Your task to perform on an android device: add a label to a message in the gmail app Image 0: 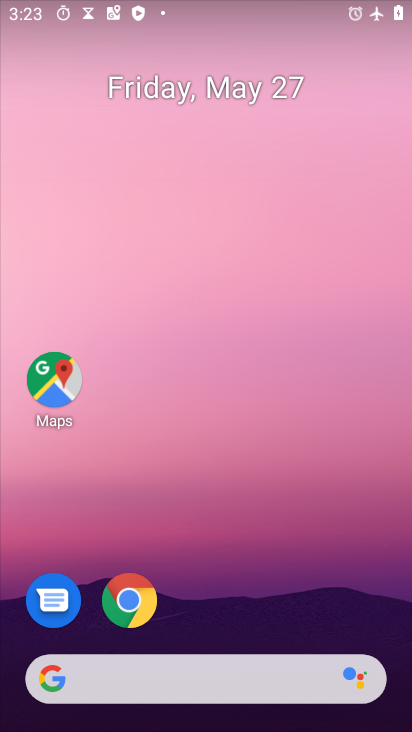
Step 0: drag from (221, 562) to (151, 26)
Your task to perform on an android device: add a label to a message in the gmail app Image 1: 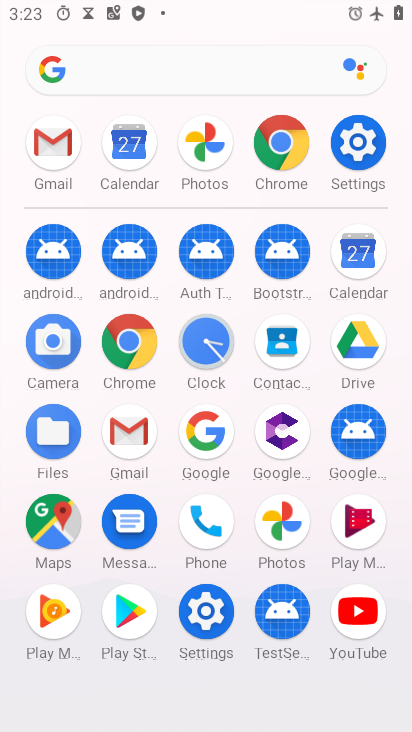
Step 1: drag from (16, 555) to (19, 232)
Your task to perform on an android device: add a label to a message in the gmail app Image 2: 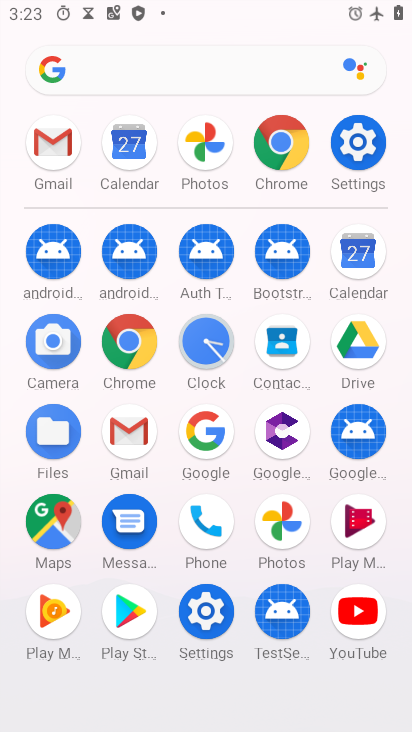
Step 2: click (123, 423)
Your task to perform on an android device: add a label to a message in the gmail app Image 3: 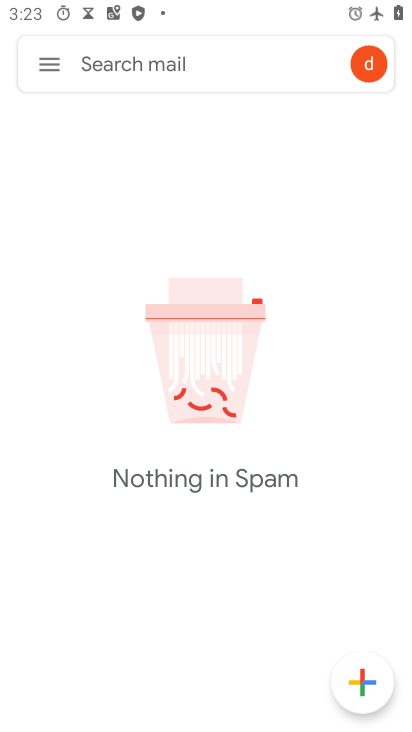
Step 3: click (58, 61)
Your task to perform on an android device: add a label to a message in the gmail app Image 4: 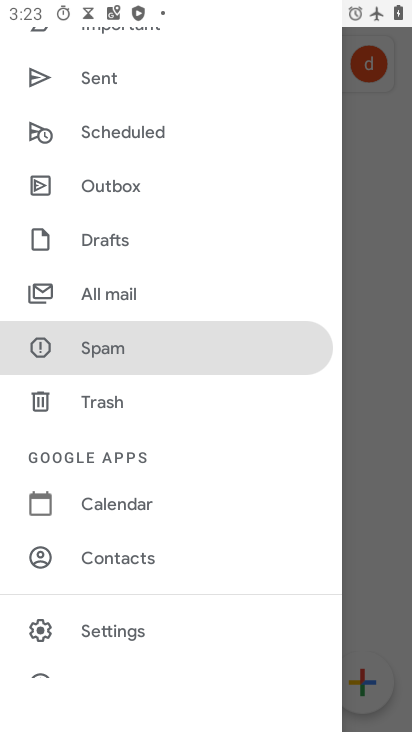
Step 4: click (119, 281)
Your task to perform on an android device: add a label to a message in the gmail app Image 5: 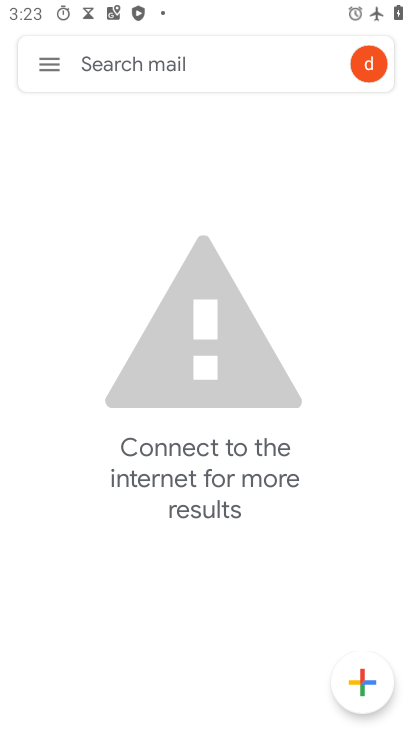
Step 5: click (38, 64)
Your task to perform on an android device: add a label to a message in the gmail app Image 6: 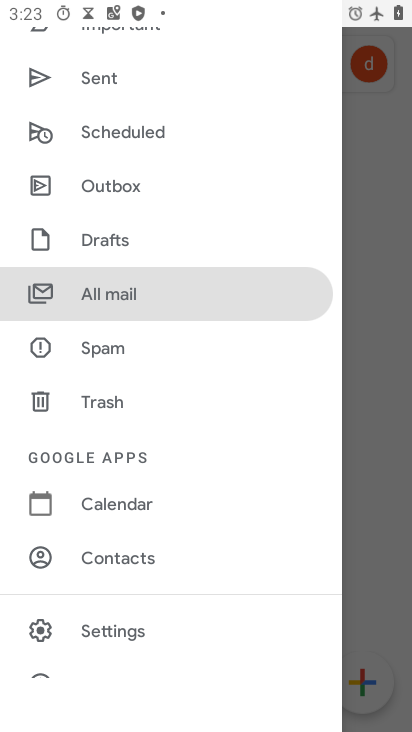
Step 6: drag from (204, 153) to (182, 468)
Your task to perform on an android device: add a label to a message in the gmail app Image 7: 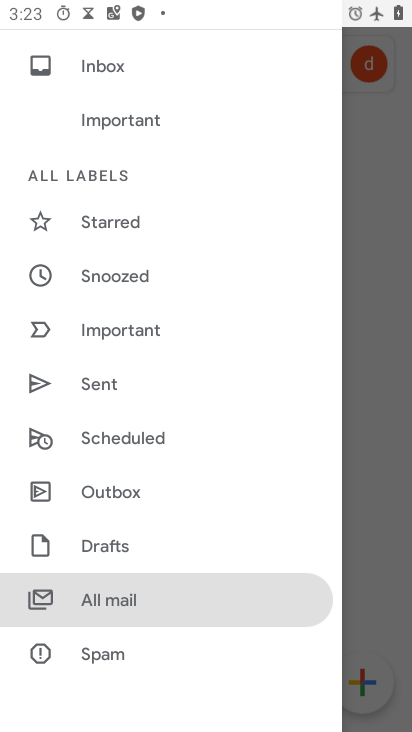
Step 7: click (149, 69)
Your task to perform on an android device: add a label to a message in the gmail app Image 8: 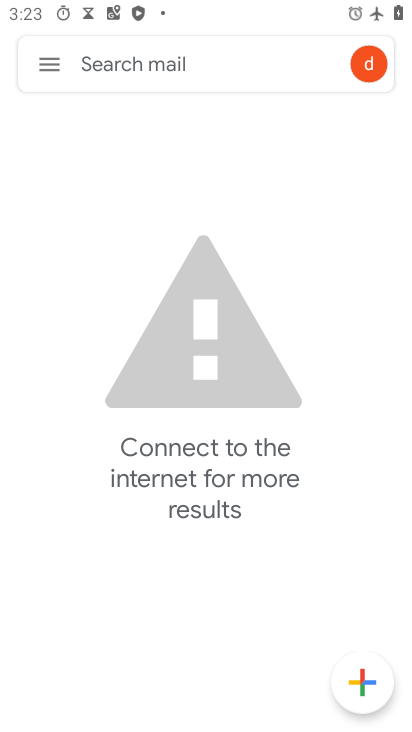
Step 8: task complete